Your task to perform on an android device: See recent photos Image 0: 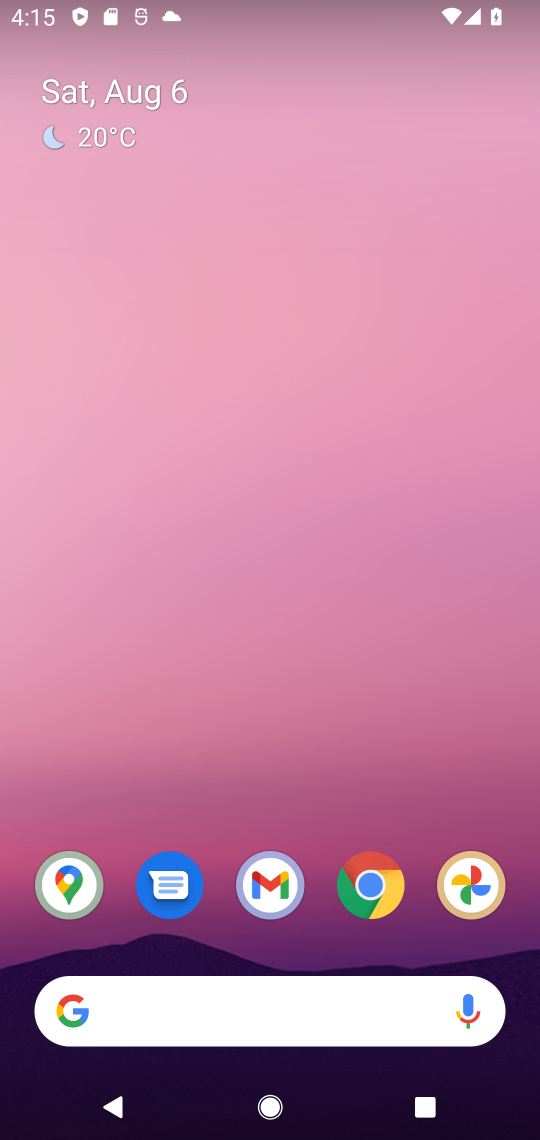
Step 0: drag from (425, 935) to (249, 101)
Your task to perform on an android device: See recent photos Image 1: 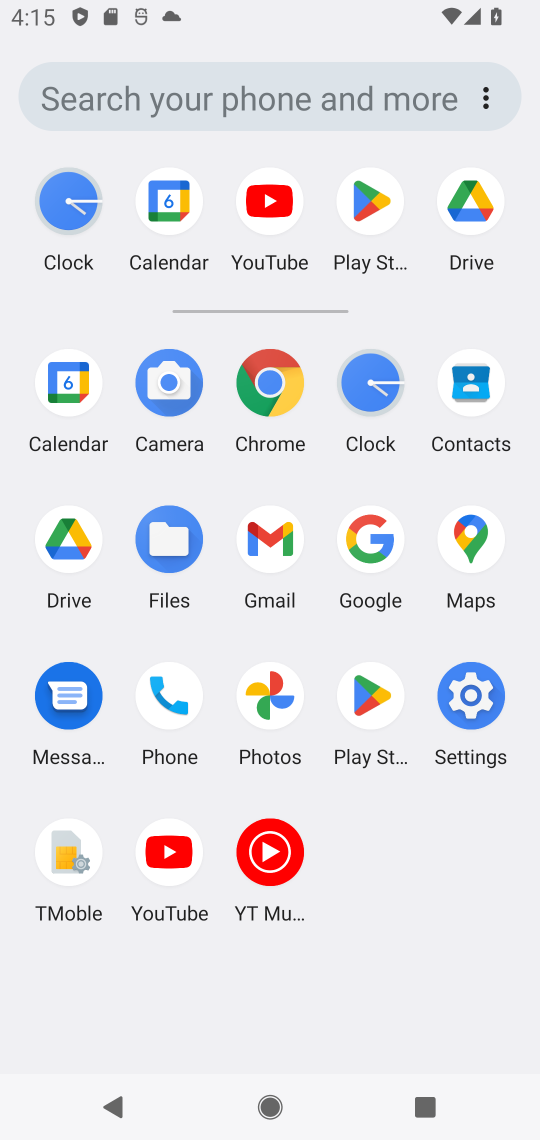
Step 1: click (286, 696)
Your task to perform on an android device: See recent photos Image 2: 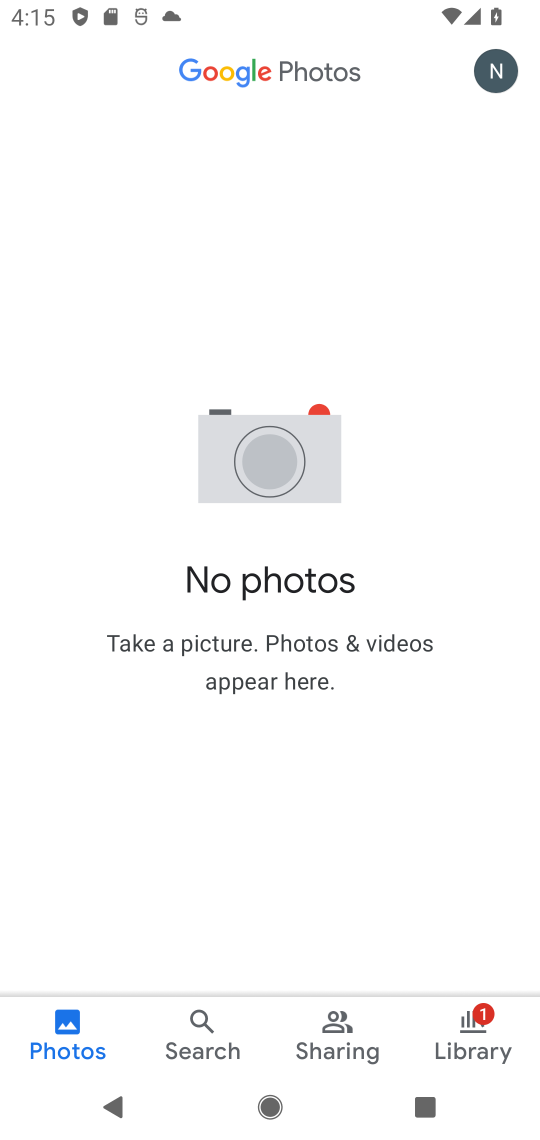
Step 2: task complete